Your task to perform on an android device: Go to location settings Image 0: 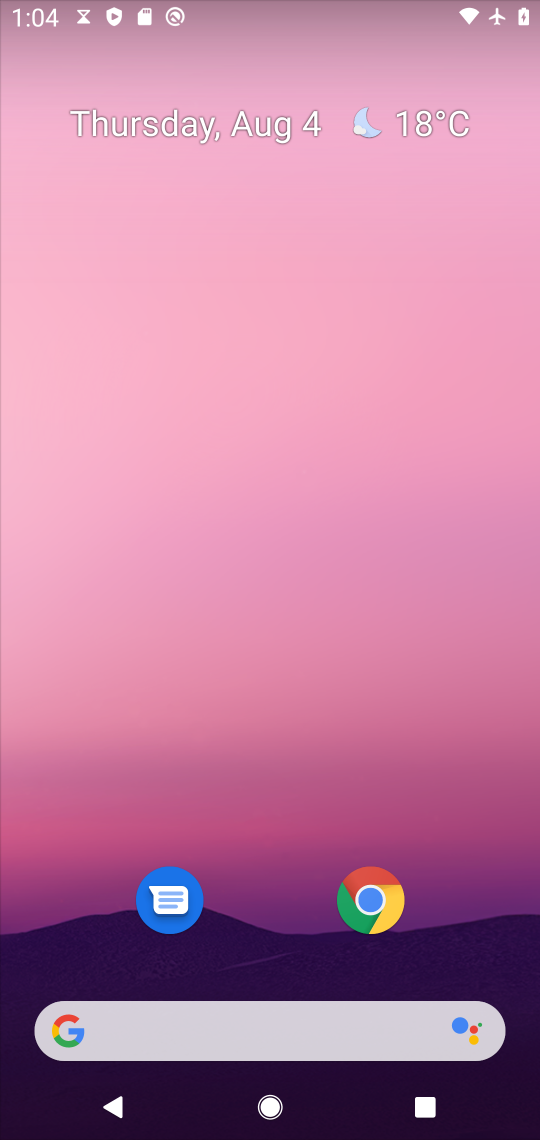
Step 0: press home button
Your task to perform on an android device: Go to location settings Image 1: 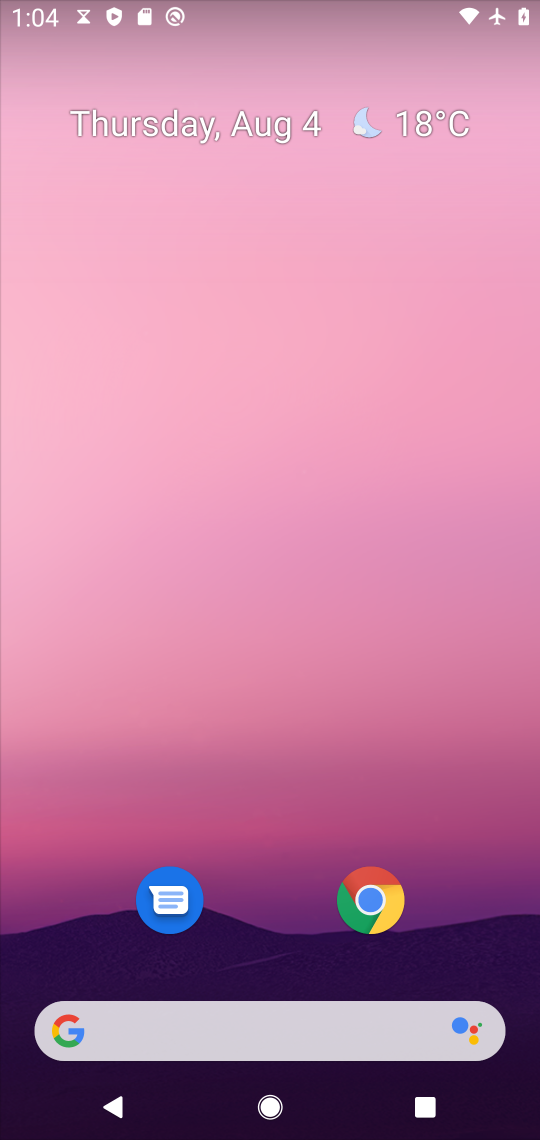
Step 1: drag from (285, 950) to (436, 201)
Your task to perform on an android device: Go to location settings Image 2: 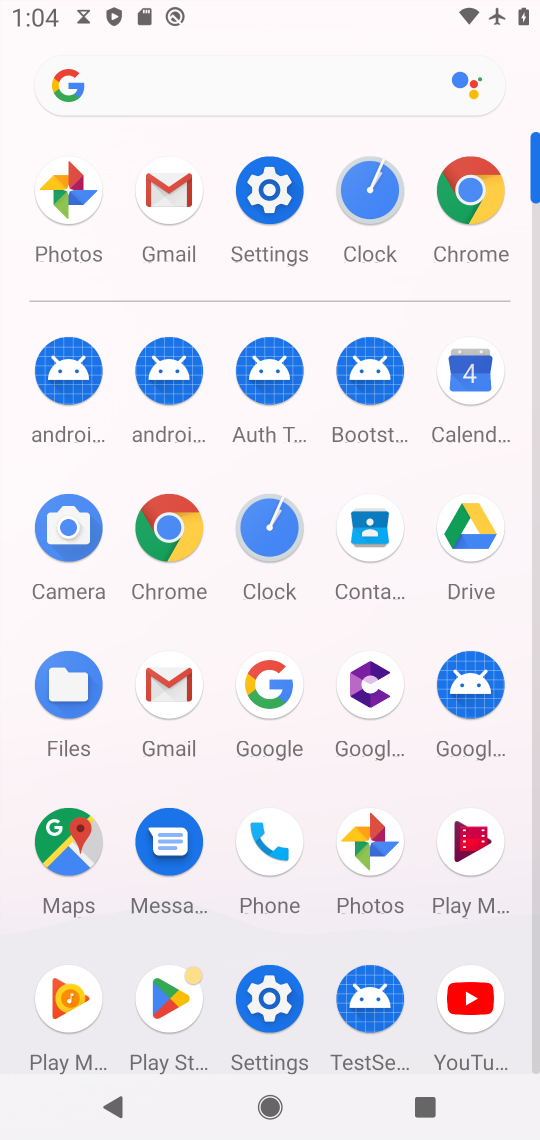
Step 2: click (272, 177)
Your task to perform on an android device: Go to location settings Image 3: 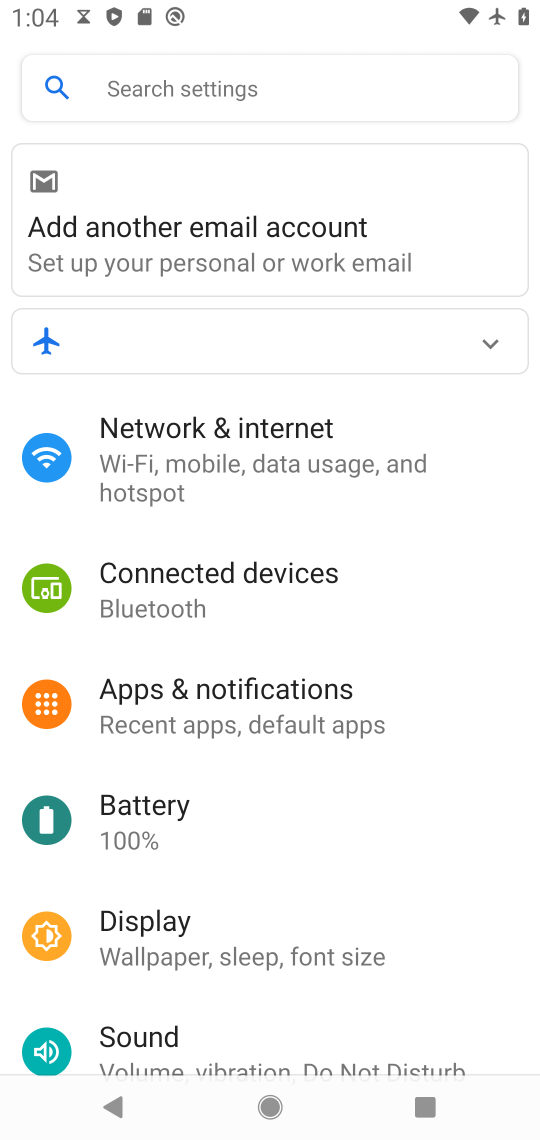
Step 3: drag from (334, 855) to (281, 126)
Your task to perform on an android device: Go to location settings Image 4: 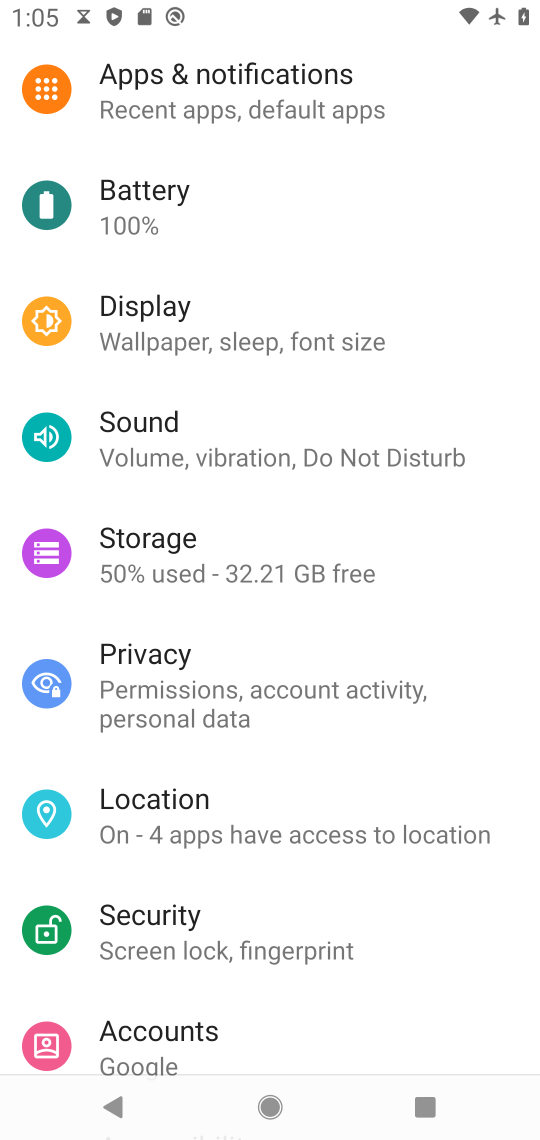
Step 4: click (167, 821)
Your task to perform on an android device: Go to location settings Image 5: 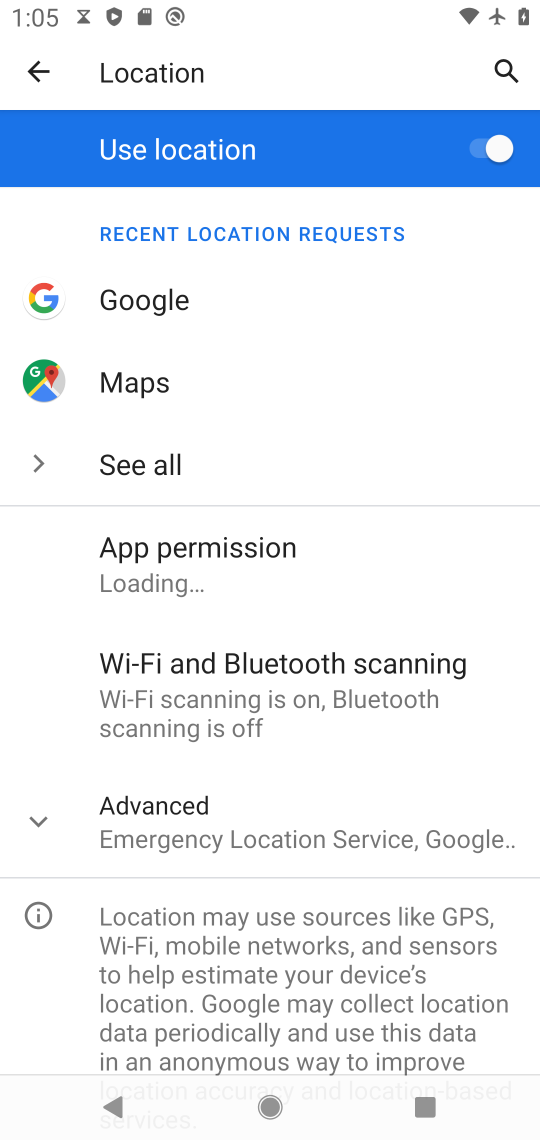
Step 5: task complete